Your task to perform on an android device: open app "LiveIn - Share Your Moment" (install if not already installed) and enter user name: "certifies@gmail.com" and password: "compartmented" Image 0: 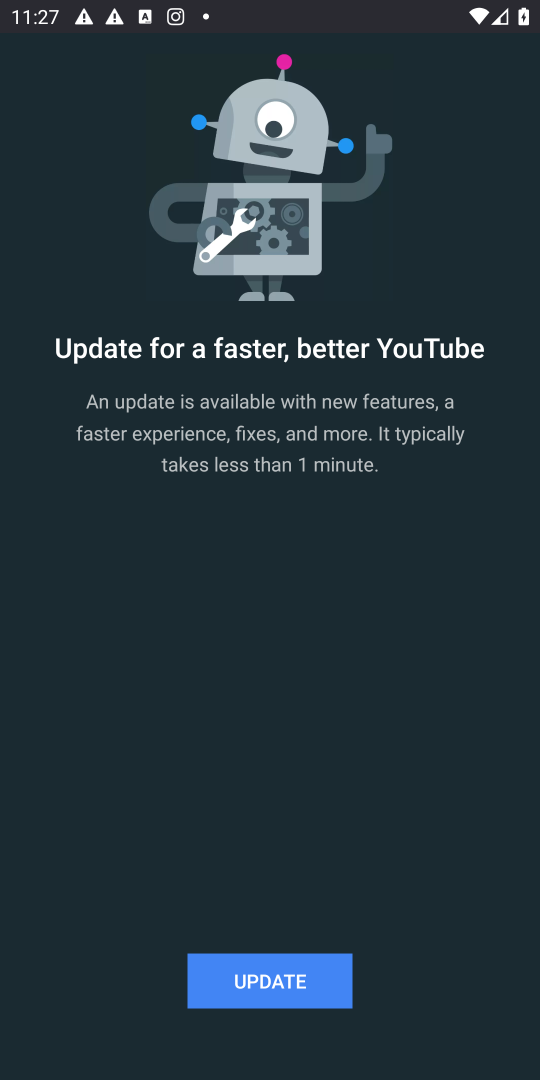
Step 0: press home button
Your task to perform on an android device: open app "LiveIn - Share Your Moment" (install if not already installed) and enter user name: "certifies@gmail.com" and password: "compartmented" Image 1: 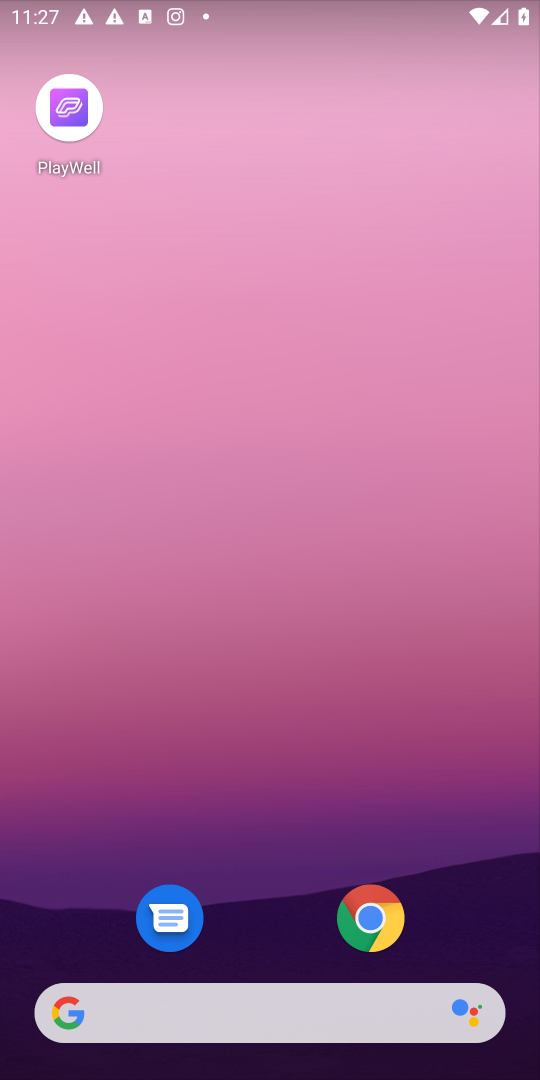
Step 1: press home button
Your task to perform on an android device: open app "LiveIn - Share Your Moment" (install if not already installed) and enter user name: "certifies@gmail.com" and password: "compartmented" Image 2: 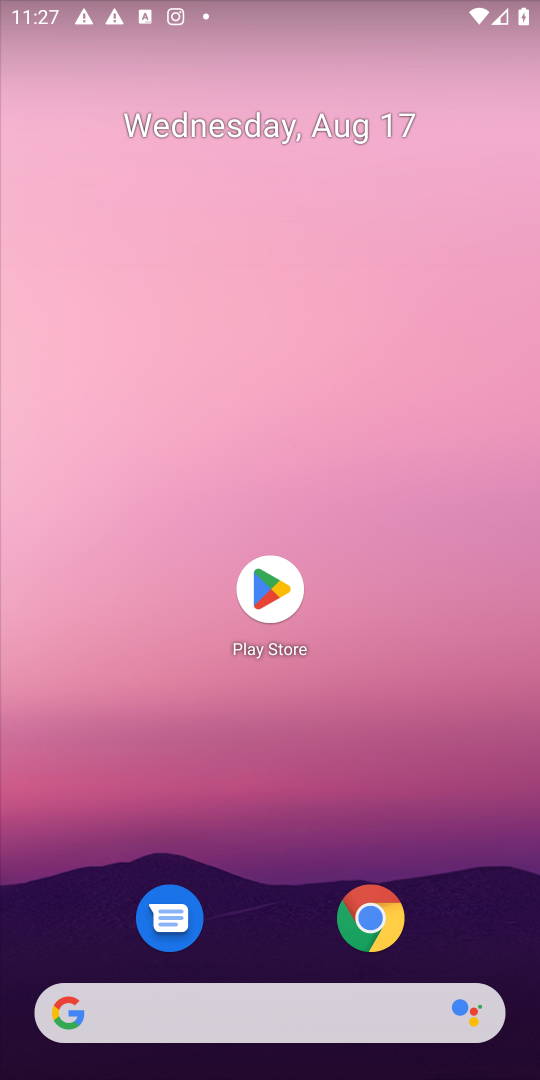
Step 2: click (260, 591)
Your task to perform on an android device: open app "LiveIn - Share Your Moment" (install if not already installed) and enter user name: "certifies@gmail.com" and password: "compartmented" Image 3: 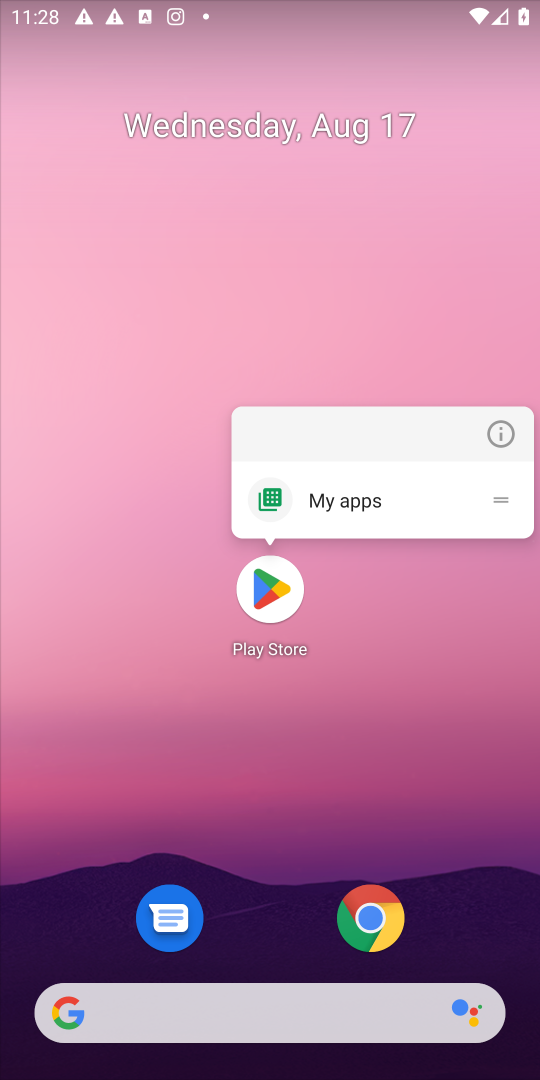
Step 3: click (281, 582)
Your task to perform on an android device: open app "LiveIn - Share Your Moment" (install if not already installed) and enter user name: "certifies@gmail.com" and password: "compartmented" Image 4: 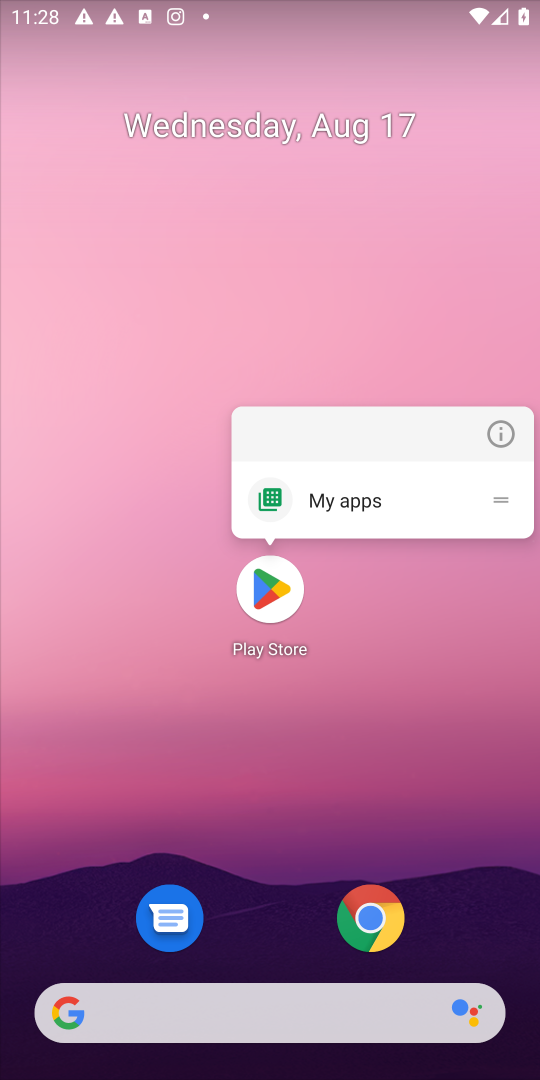
Step 4: click (260, 584)
Your task to perform on an android device: open app "LiveIn - Share Your Moment" (install if not already installed) and enter user name: "certifies@gmail.com" and password: "compartmented" Image 5: 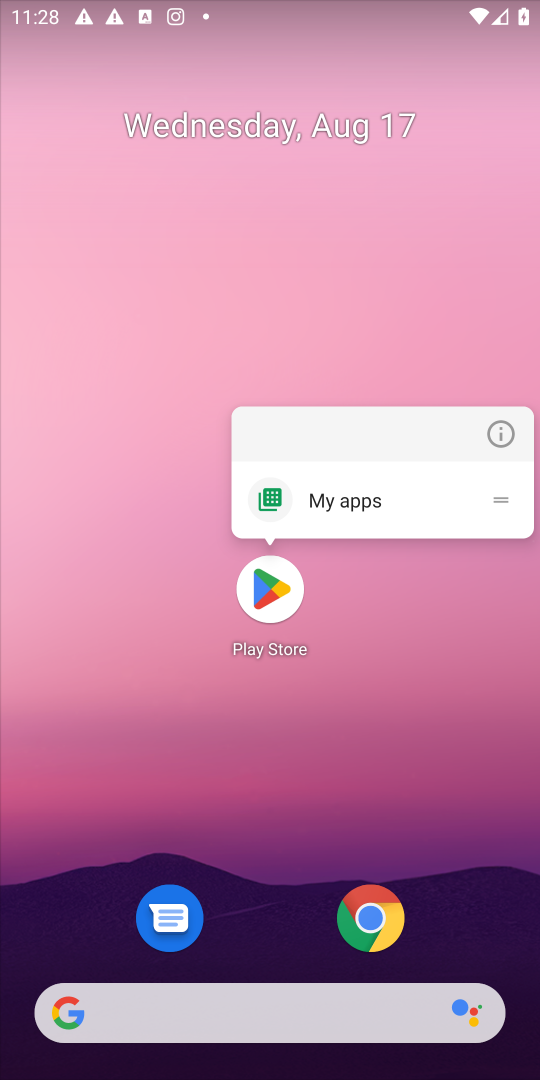
Step 5: click (264, 591)
Your task to perform on an android device: open app "LiveIn - Share Your Moment" (install if not already installed) and enter user name: "certifies@gmail.com" and password: "compartmented" Image 6: 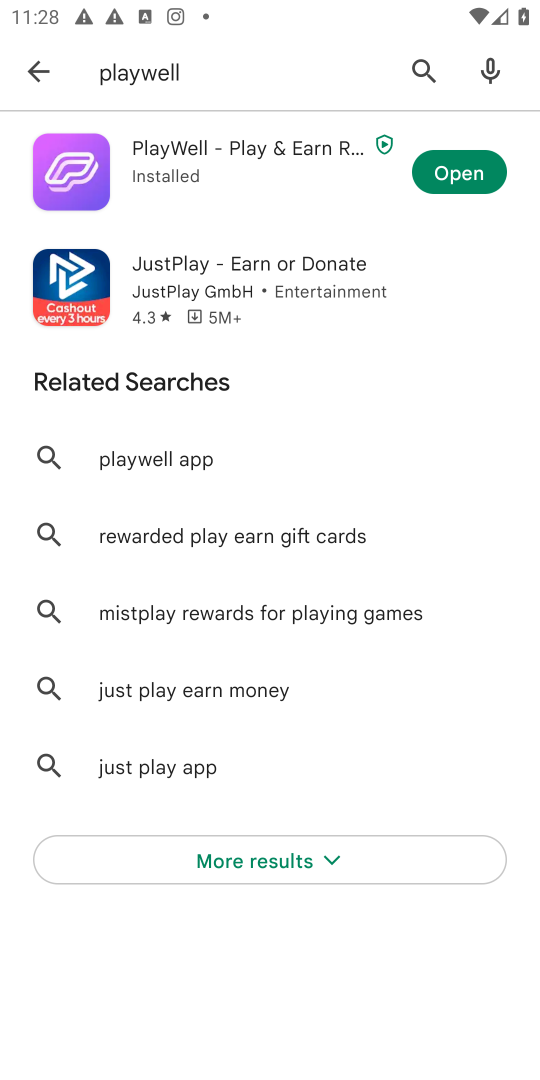
Step 6: click (420, 68)
Your task to perform on an android device: open app "LiveIn - Share Your Moment" (install if not already installed) and enter user name: "certifies@gmail.com" and password: "compartmented" Image 7: 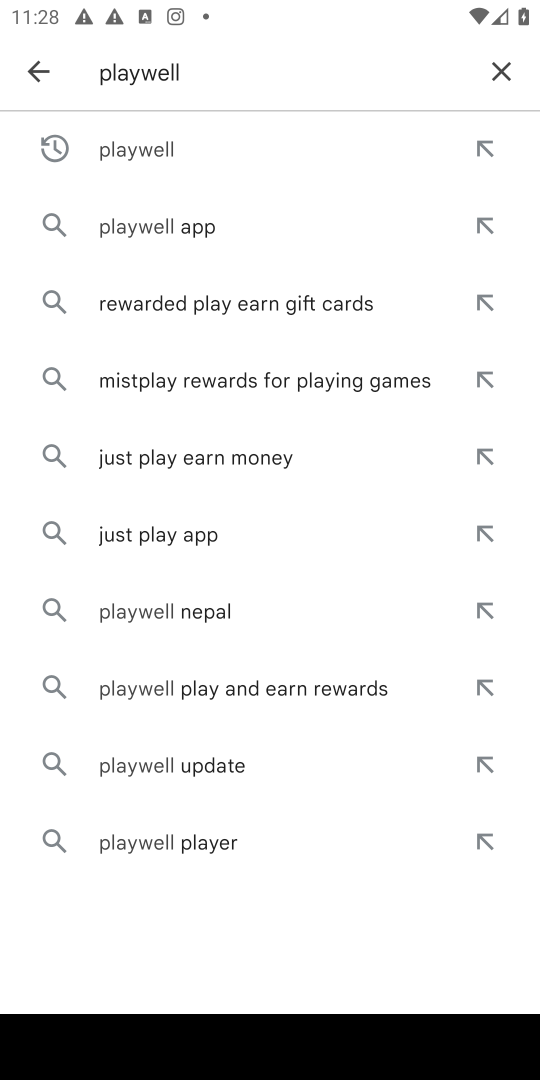
Step 7: click (493, 71)
Your task to perform on an android device: open app "LiveIn - Share Your Moment" (install if not already installed) and enter user name: "certifies@gmail.com" and password: "compartmented" Image 8: 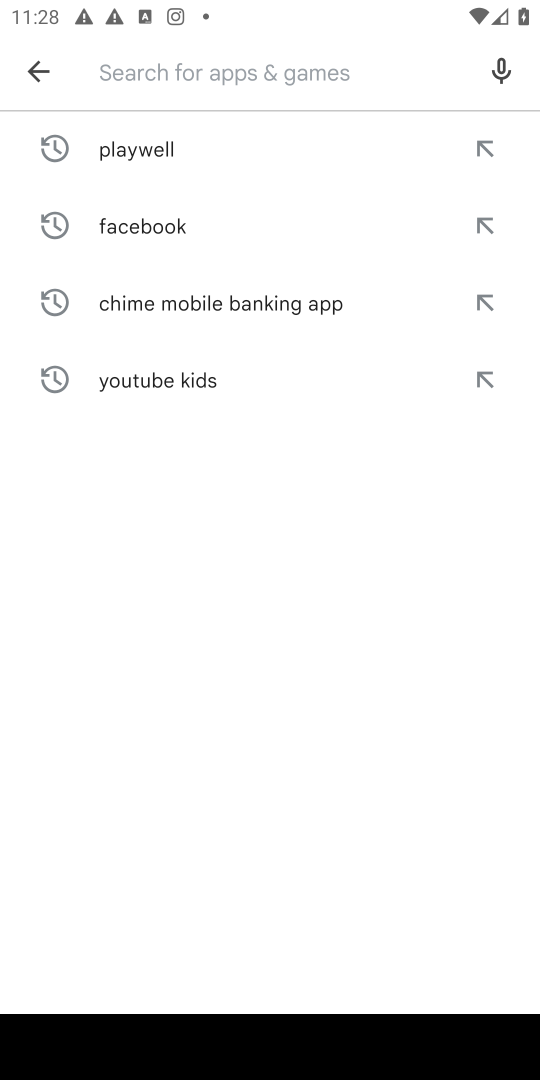
Step 8: type "LiveIn - Share Your Moment"
Your task to perform on an android device: open app "LiveIn - Share Your Moment" (install if not already installed) and enter user name: "certifies@gmail.com" and password: "compartmented" Image 9: 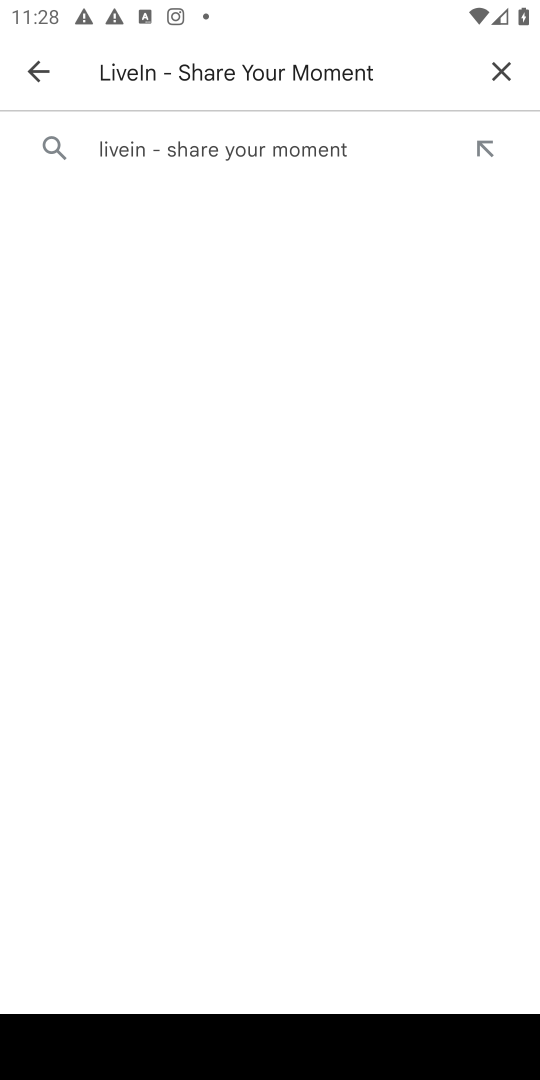
Step 9: click (219, 159)
Your task to perform on an android device: open app "LiveIn - Share Your Moment" (install if not already installed) and enter user name: "certifies@gmail.com" and password: "compartmented" Image 10: 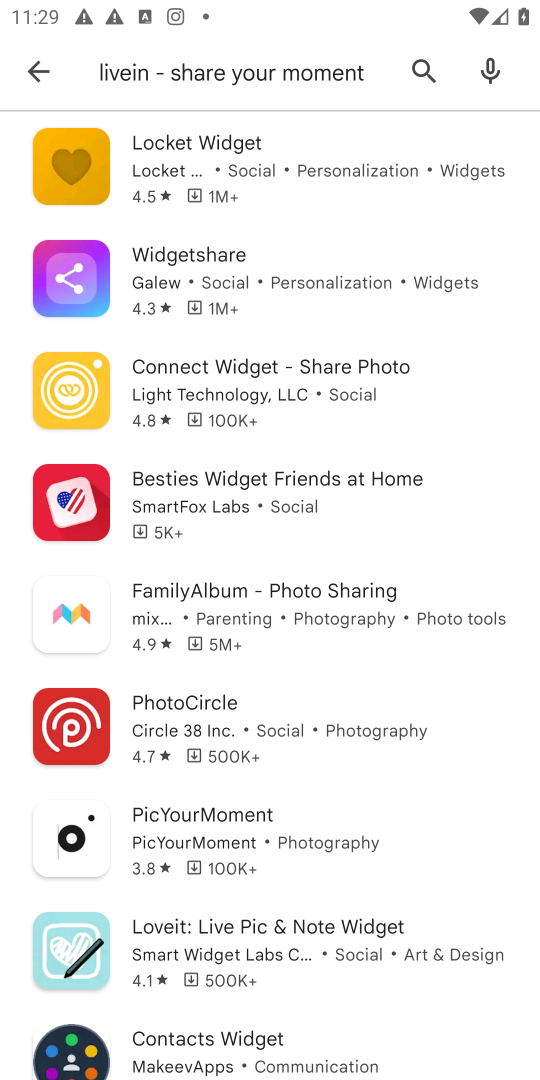
Step 10: task complete